Your task to perform on an android device: turn off notifications in google photos Image 0: 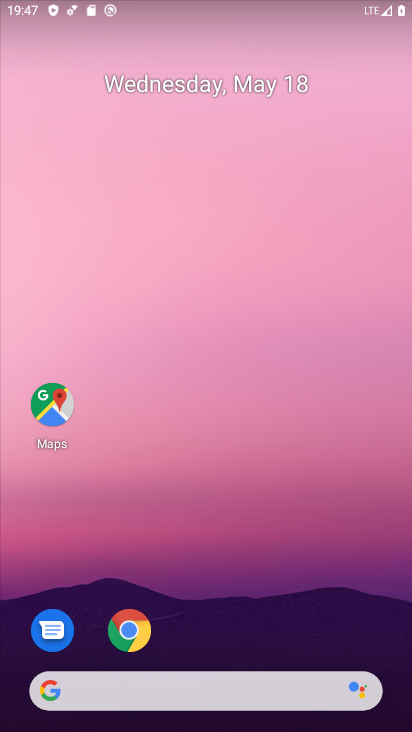
Step 0: press home button
Your task to perform on an android device: turn off notifications in google photos Image 1: 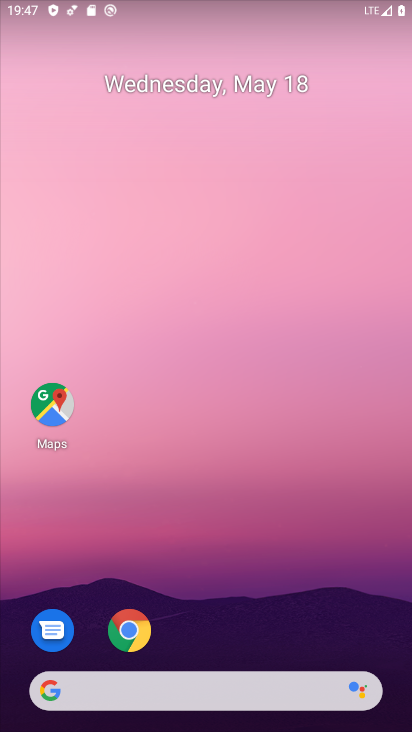
Step 1: drag from (155, 701) to (350, 164)
Your task to perform on an android device: turn off notifications in google photos Image 2: 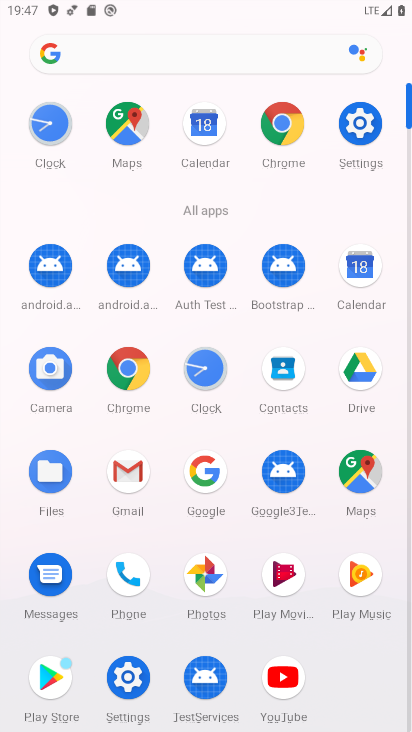
Step 2: click (208, 576)
Your task to perform on an android device: turn off notifications in google photos Image 3: 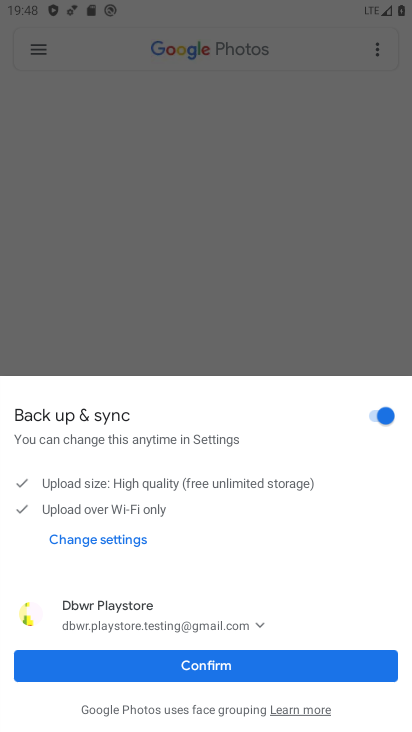
Step 3: click (165, 622)
Your task to perform on an android device: turn off notifications in google photos Image 4: 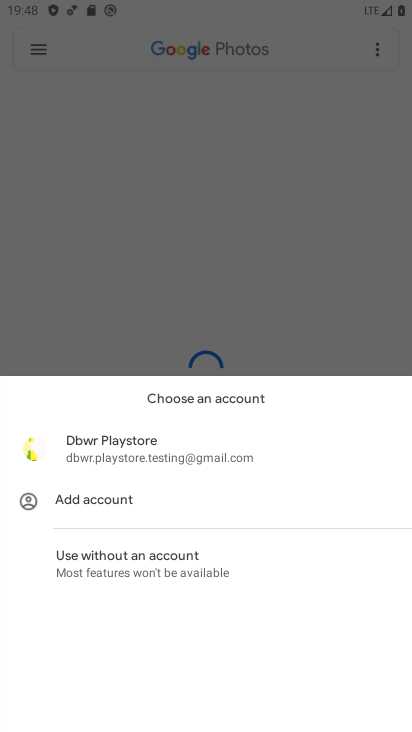
Step 4: click (144, 459)
Your task to perform on an android device: turn off notifications in google photos Image 5: 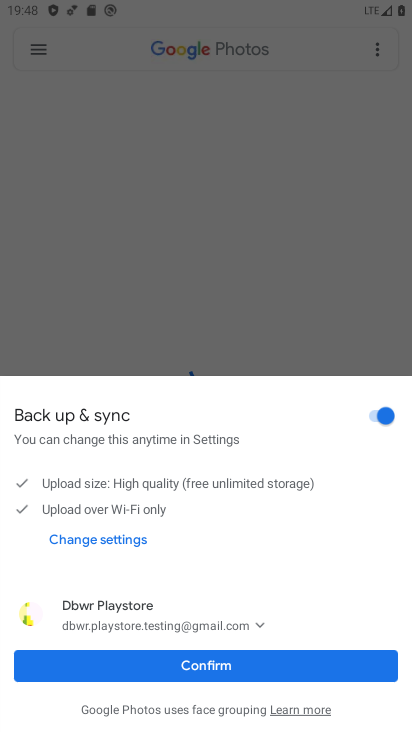
Step 5: click (204, 673)
Your task to perform on an android device: turn off notifications in google photos Image 6: 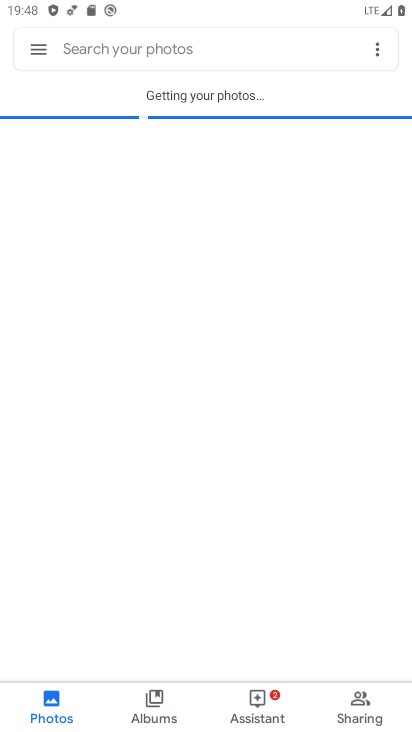
Step 6: click (34, 38)
Your task to perform on an android device: turn off notifications in google photos Image 7: 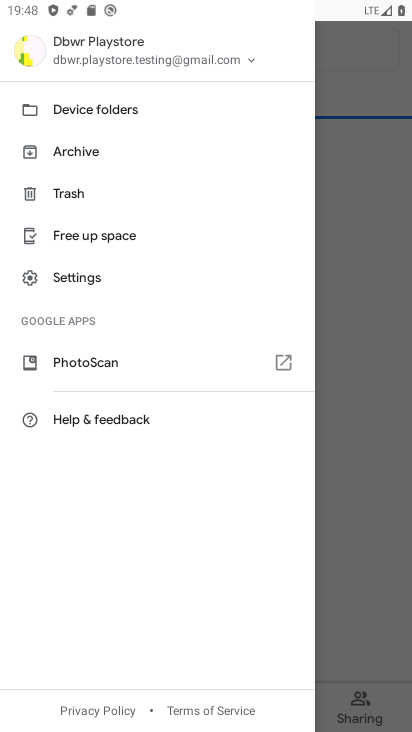
Step 7: click (92, 276)
Your task to perform on an android device: turn off notifications in google photos Image 8: 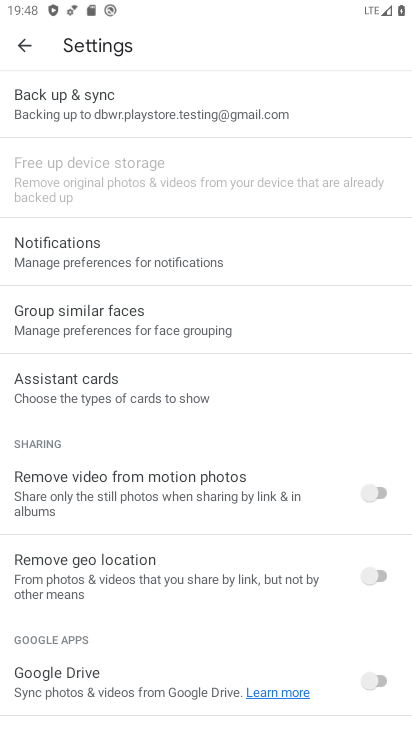
Step 8: click (163, 249)
Your task to perform on an android device: turn off notifications in google photos Image 9: 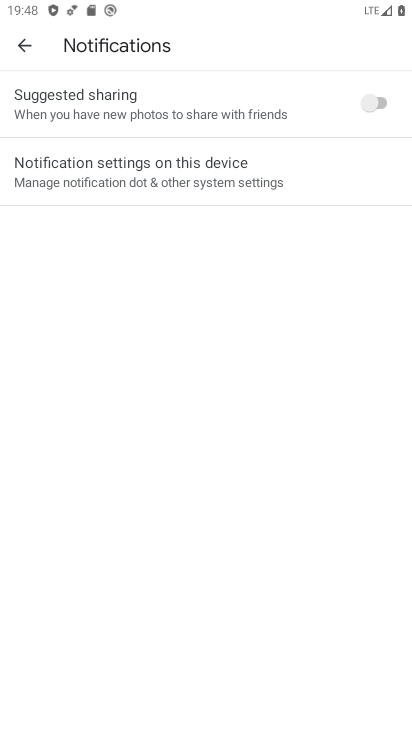
Step 9: click (203, 165)
Your task to perform on an android device: turn off notifications in google photos Image 10: 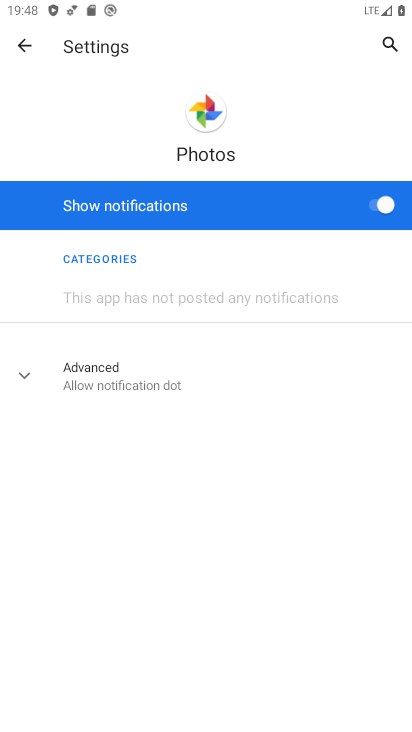
Step 10: click (375, 200)
Your task to perform on an android device: turn off notifications in google photos Image 11: 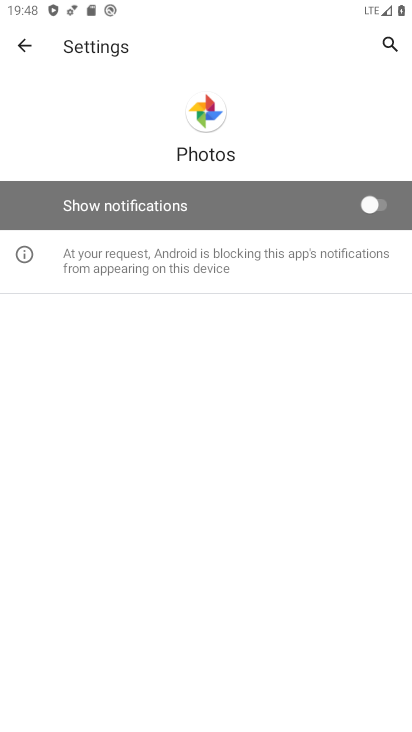
Step 11: task complete